Your task to perform on an android device: Search for sushi restaurants on Maps Image 0: 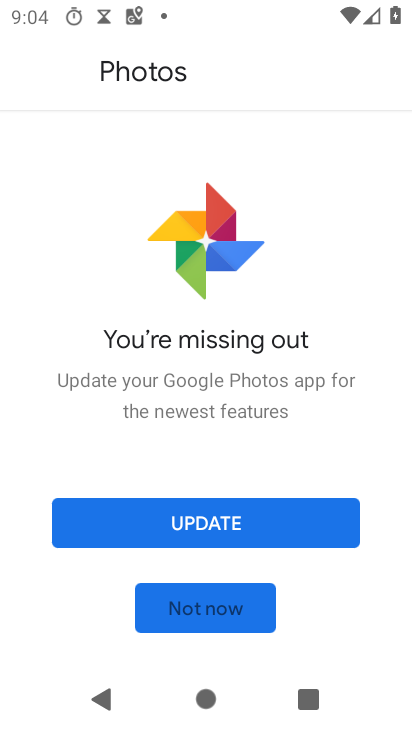
Step 0: press home button
Your task to perform on an android device: Search for sushi restaurants on Maps Image 1: 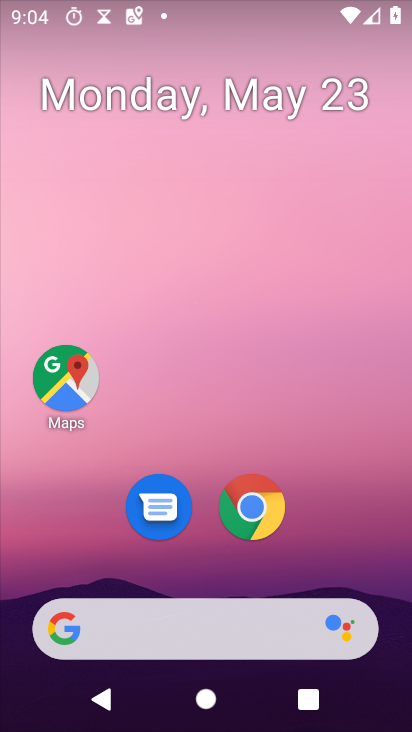
Step 1: drag from (324, 377) to (283, 91)
Your task to perform on an android device: Search for sushi restaurants on Maps Image 2: 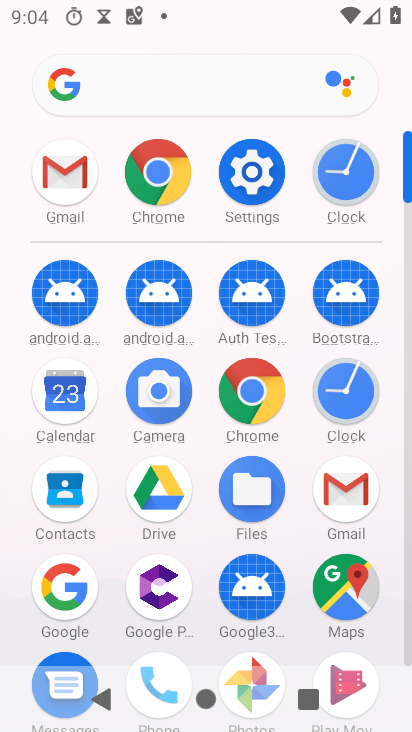
Step 2: click (370, 588)
Your task to perform on an android device: Search for sushi restaurants on Maps Image 3: 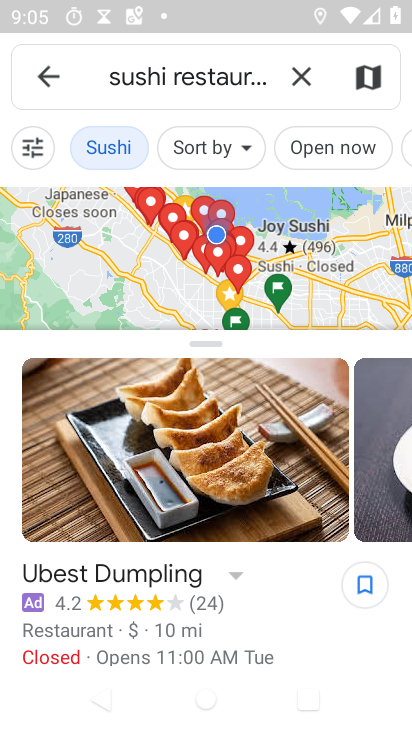
Step 3: task complete